Your task to perform on an android device: Open calendar and show me the third week of next month Image 0: 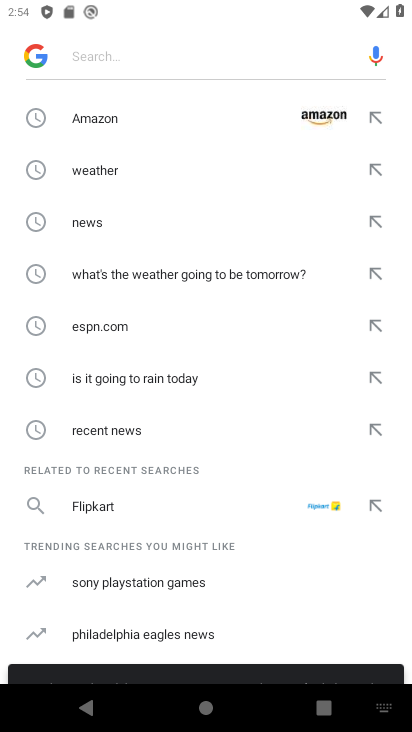
Step 0: press home button
Your task to perform on an android device: Open calendar and show me the third week of next month Image 1: 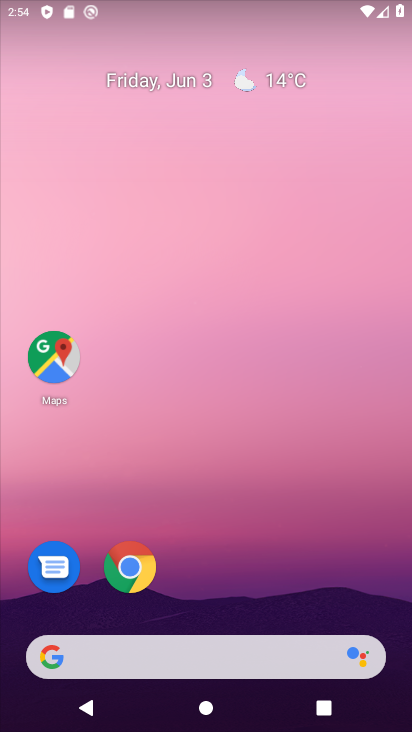
Step 1: drag from (214, 524) to (297, 19)
Your task to perform on an android device: Open calendar and show me the third week of next month Image 2: 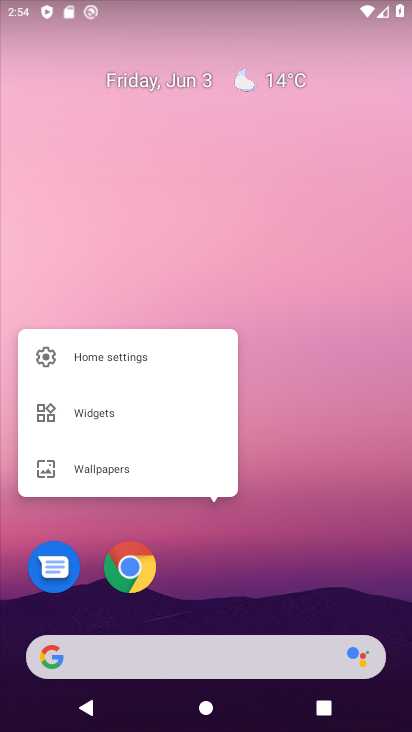
Step 2: drag from (200, 556) to (290, 24)
Your task to perform on an android device: Open calendar and show me the third week of next month Image 3: 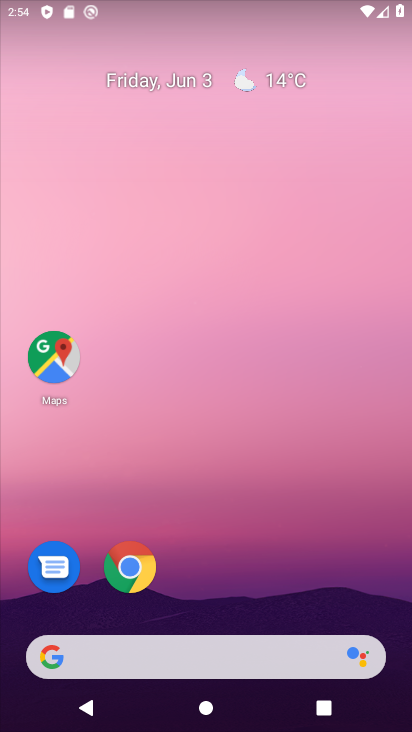
Step 3: drag from (268, 154) to (293, 19)
Your task to perform on an android device: Open calendar and show me the third week of next month Image 4: 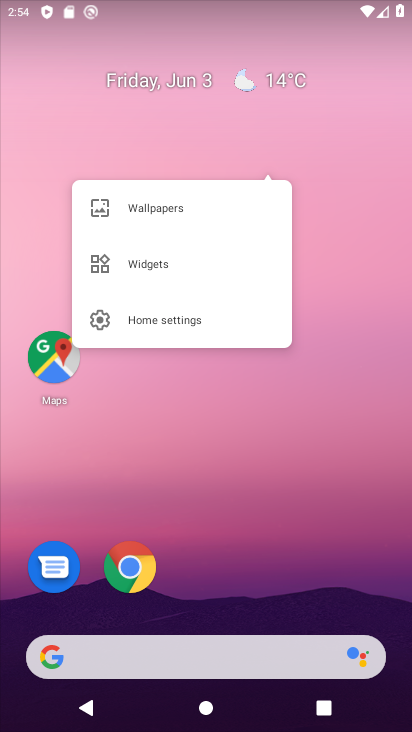
Step 4: click (264, 96)
Your task to perform on an android device: Open calendar and show me the third week of next month Image 5: 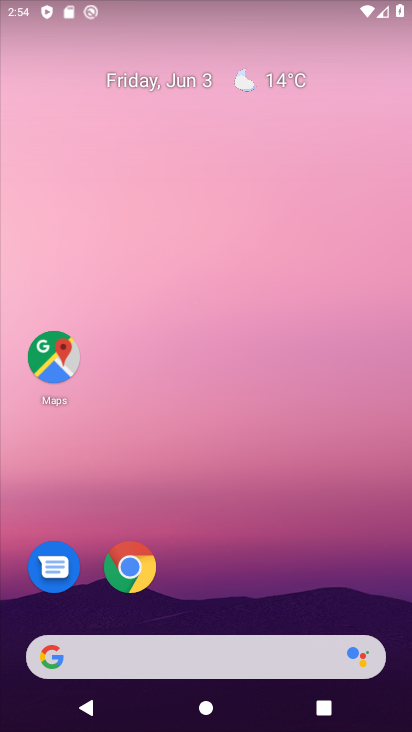
Step 5: click (297, 490)
Your task to perform on an android device: Open calendar and show me the third week of next month Image 6: 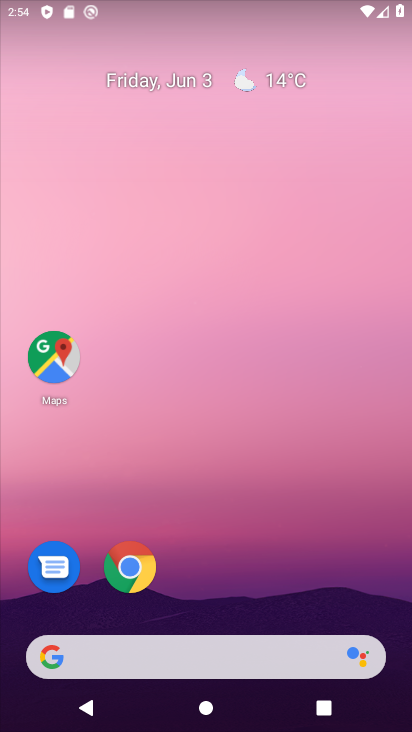
Step 6: drag from (259, 598) to (314, 2)
Your task to perform on an android device: Open calendar and show me the third week of next month Image 7: 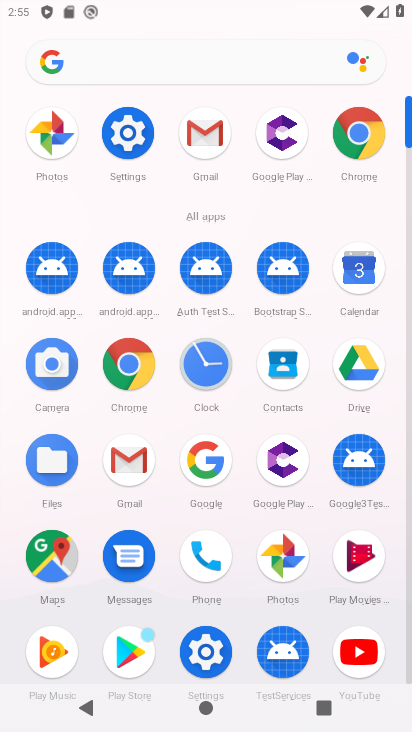
Step 7: click (208, 378)
Your task to perform on an android device: Open calendar and show me the third week of next month Image 8: 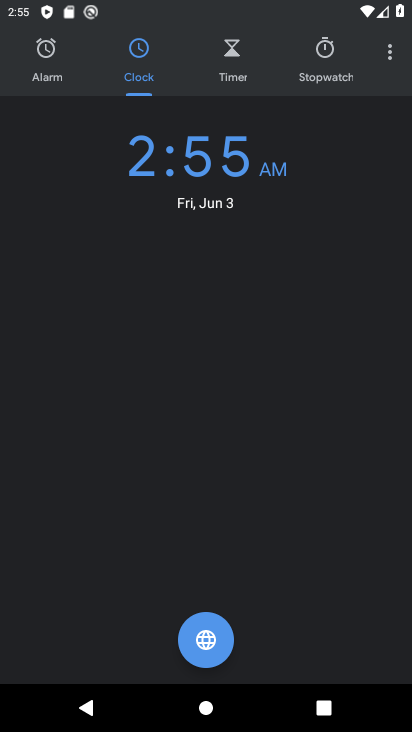
Step 8: press home button
Your task to perform on an android device: Open calendar and show me the third week of next month Image 9: 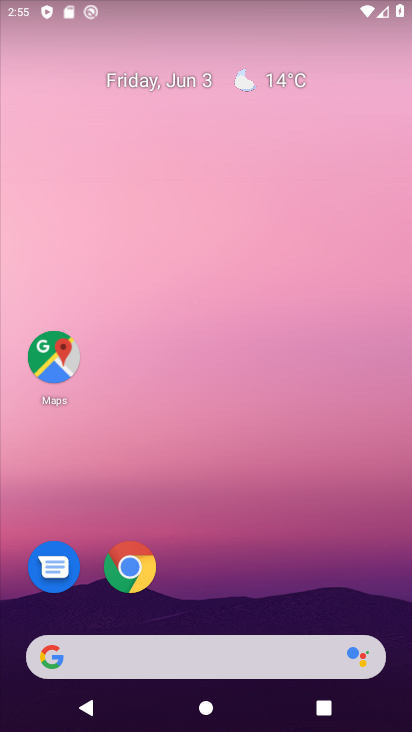
Step 9: drag from (217, 575) to (331, 87)
Your task to perform on an android device: Open calendar and show me the third week of next month Image 10: 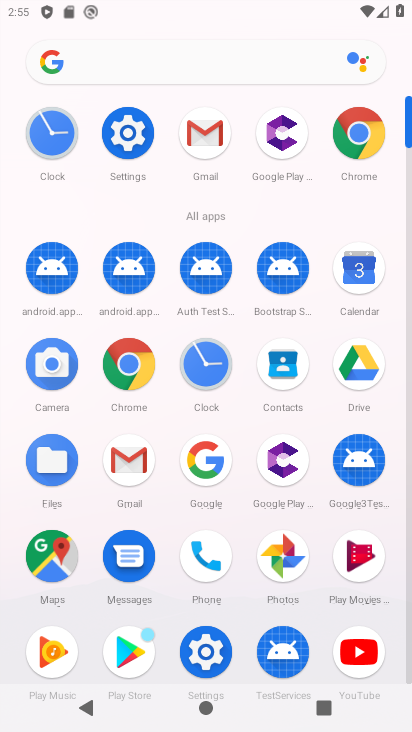
Step 10: click (361, 281)
Your task to perform on an android device: Open calendar and show me the third week of next month Image 11: 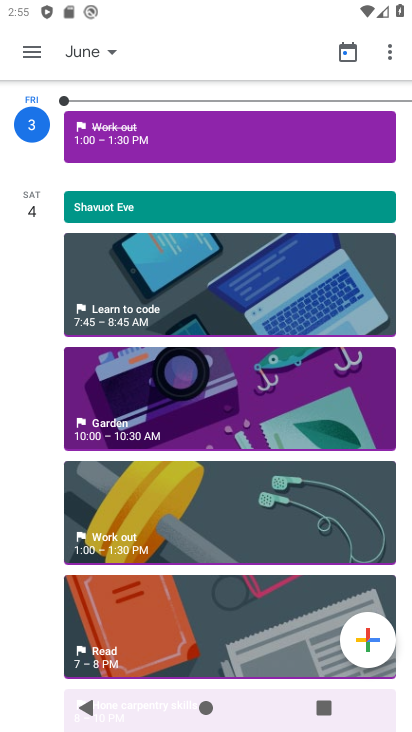
Step 11: click (33, 51)
Your task to perform on an android device: Open calendar and show me the third week of next month Image 12: 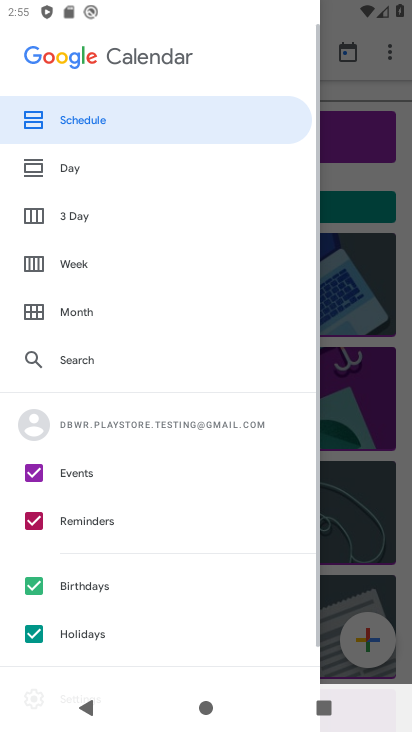
Step 12: click (79, 266)
Your task to perform on an android device: Open calendar and show me the third week of next month Image 13: 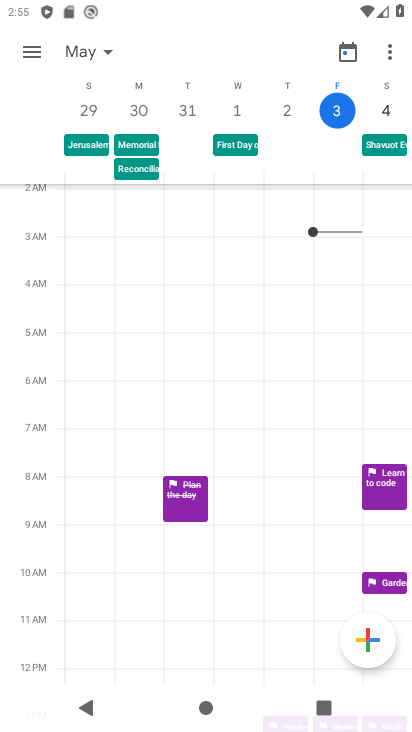
Step 13: click (102, 50)
Your task to perform on an android device: Open calendar and show me the third week of next month Image 14: 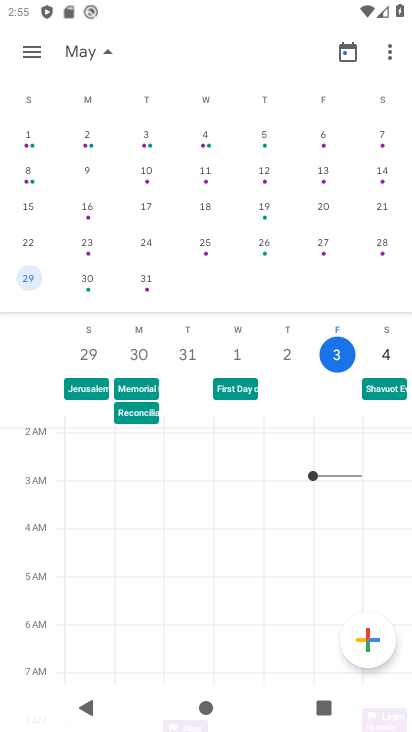
Step 14: drag from (281, 218) to (3, 179)
Your task to perform on an android device: Open calendar and show me the third week of next month Image 15: 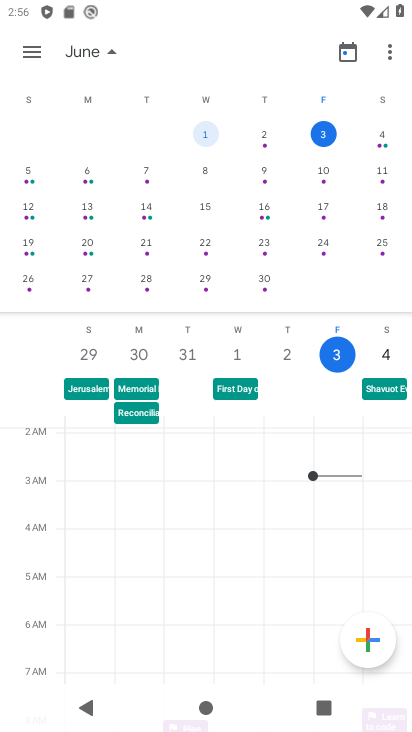
Step 15: drag from (373, 193) to (12, 165)
Your task to perform on an android device: Open calendar and show me the third week of next month Image 16: 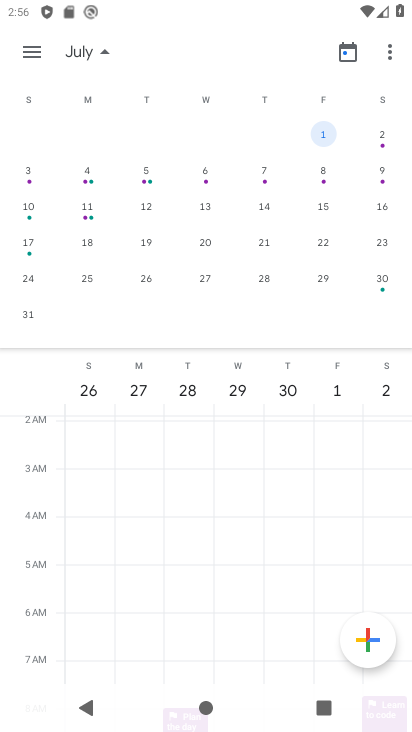
Step 16: click (326, 246)
Your task to perform on an android device: Open calendar and show me the third week of next month Image 17: 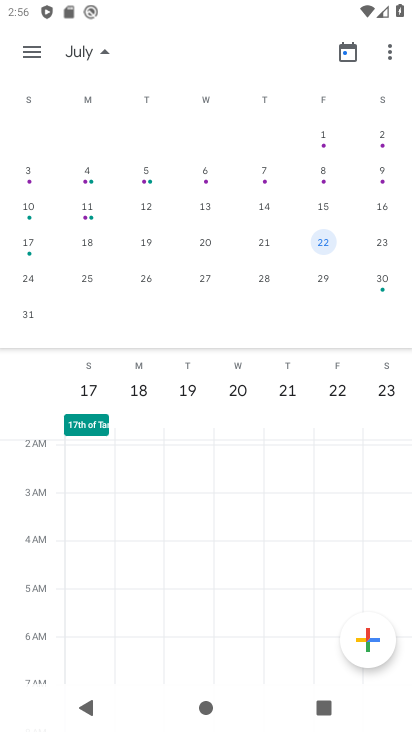
Step 17: click (29, 56)
Your task to perform on an android device: Open calendar and show me the third week of next month Image 18: 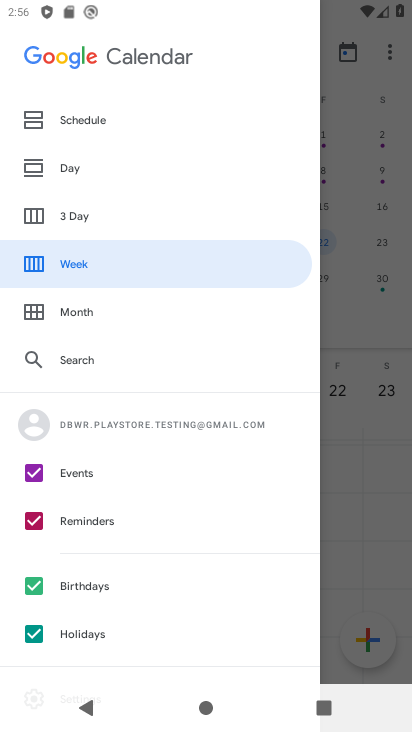
Step 18: click (85, 260)
Your task to perform on an android device: Open calendar and show me the third week of next month Image 19: 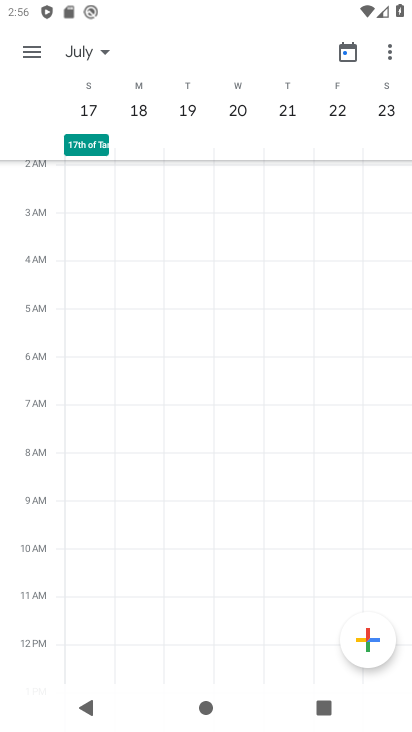
Step 19: task complete